Your task to perform on an android device: Open settings Image 0: 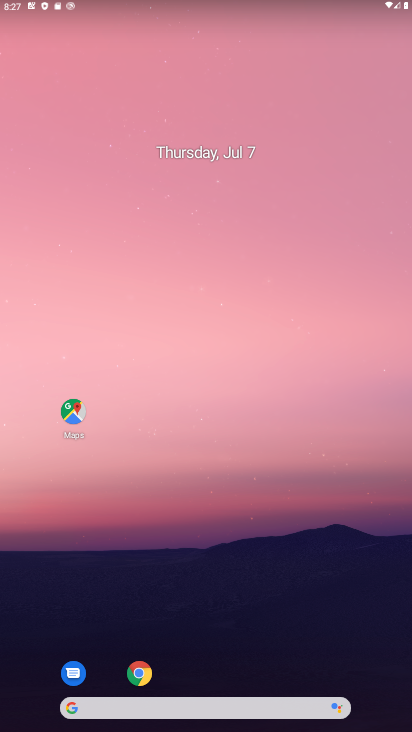
Step 0: drag from (284, 554) to (313, 23)
Your task to perform on an android device: Open settings Image 1: 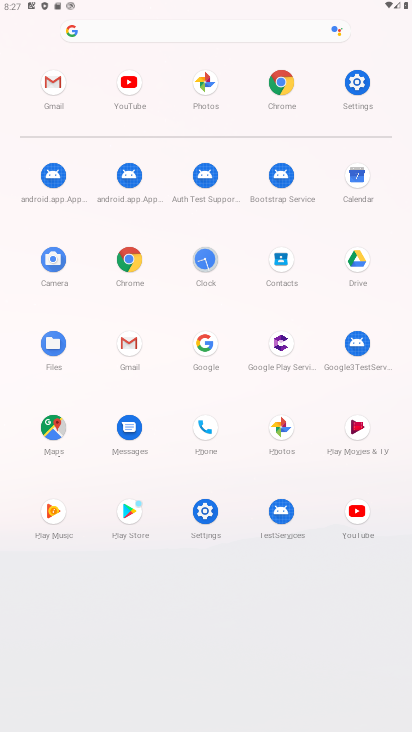
Step 1: click (356, 80)
Your task to perform on an android device: Open settings Image 2: 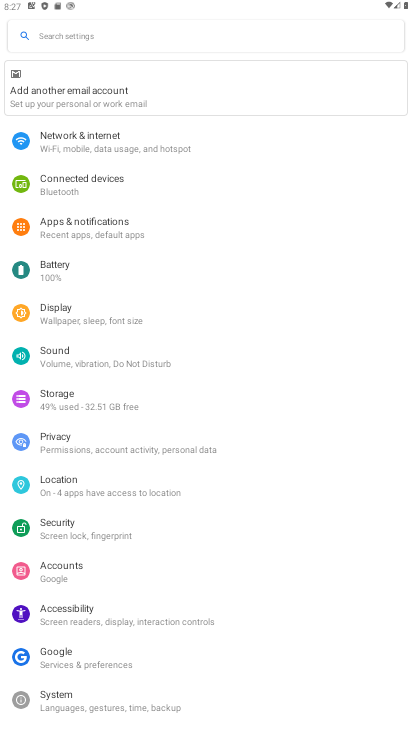
Step 2: task complete